Your task to perform on an android device: turn on the 24-hour format for clock Image 0: 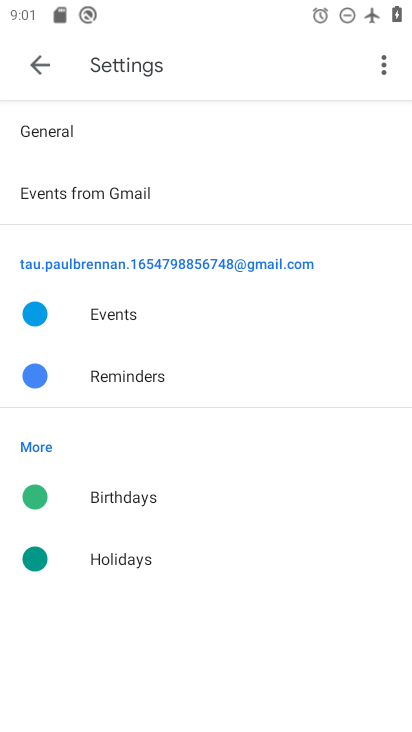
Step 0: press home button
Your task to perform on an android device: turn on the 24-hour format for clock Image 1: 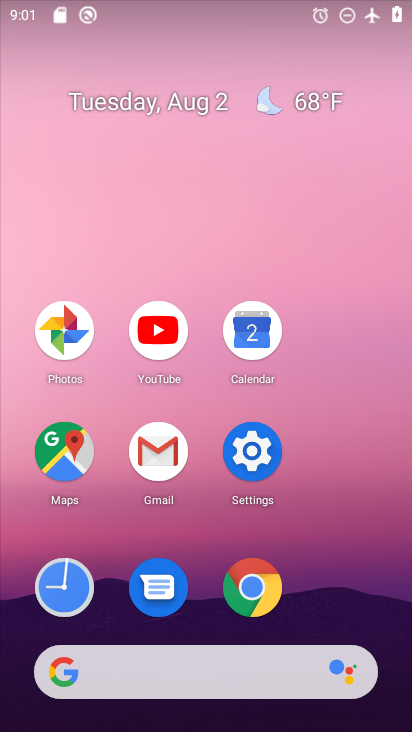
Step 1: click (60, 598)
Your task to perform on an android device: turn on the 24-hour format for clock Image 2: 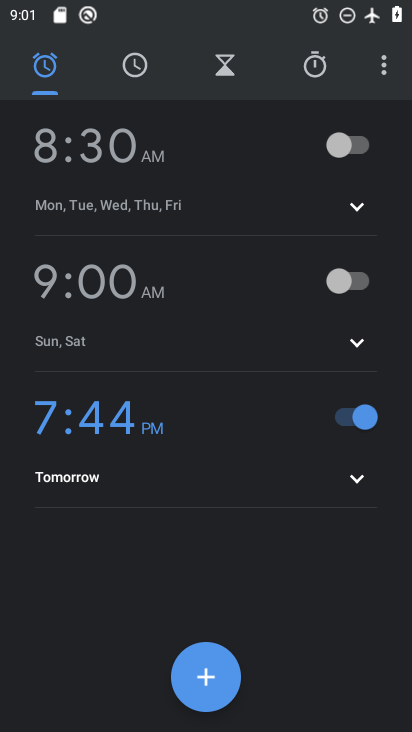
Step 2: click (387, 66)
Your task to perform on an android device: turn on the 24-hour format for clock Image 3: 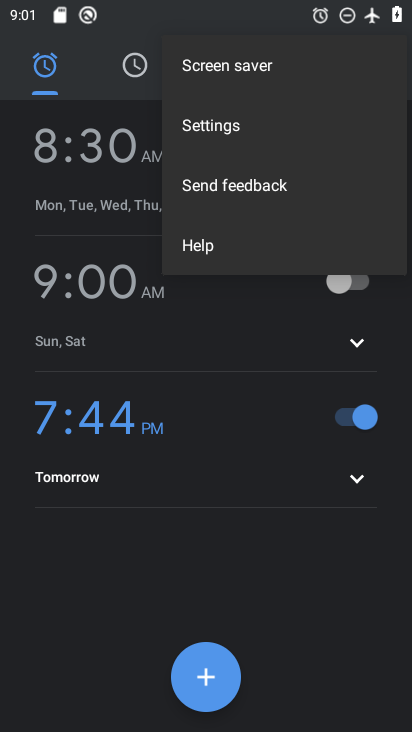
Step 3: click (235, 115)
Your task to perform on an android device: turn on the 24-hour format for clock Image 4: 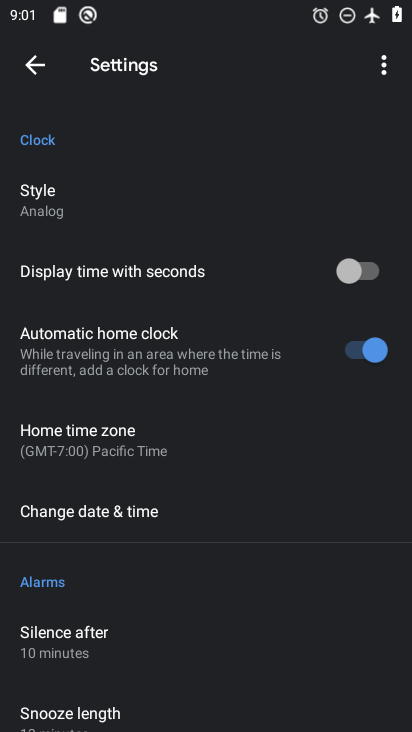
Step 4: drag from (239, 639) to (239, 162)
Your task to perform on an android device: turn on the 24-hour format for clock Image 5: 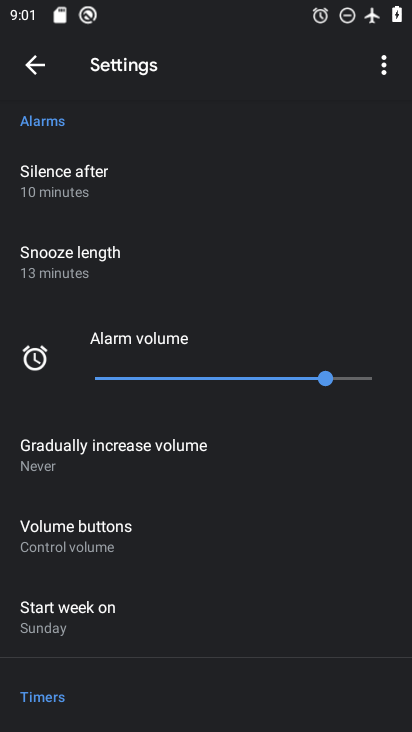
Step 5: drag from (236, 624) to (223, 198)
Your task to perform on an android device: turn on the 24-hour format for clock Image 6: 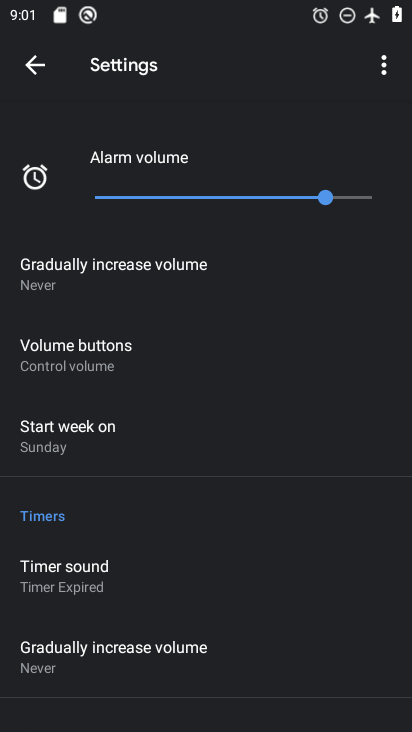
Step 6: drag from (255, 564) to (282, 229)
Your task to perform on an android device: turn on the 24-hour format for clock Image 7: 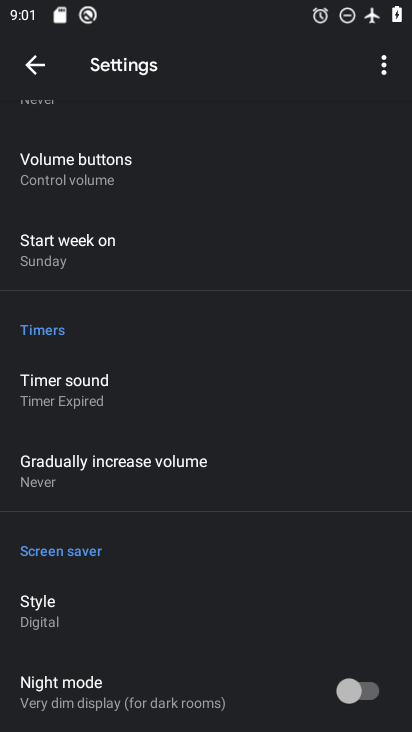
Step 7: drag from (186, 585) to (196, 205)
Your task to perform on an android device: turn on the 24-hour format for clock Image 8: 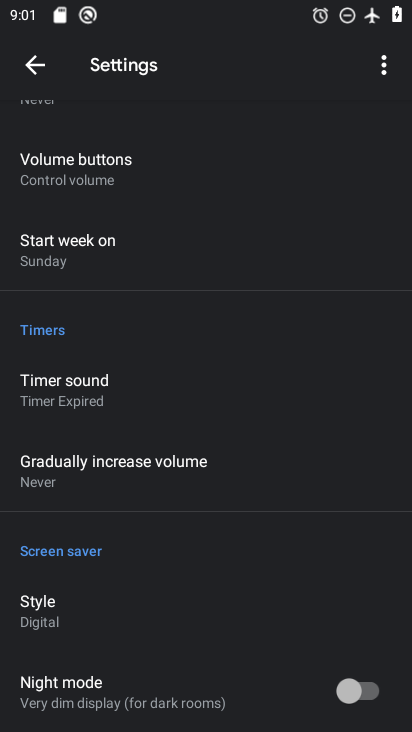
Step 8: drag from (196, 205) to (232, 595)
Your task to perform on an android device: turn on the 24-hour format for clock Image 9: 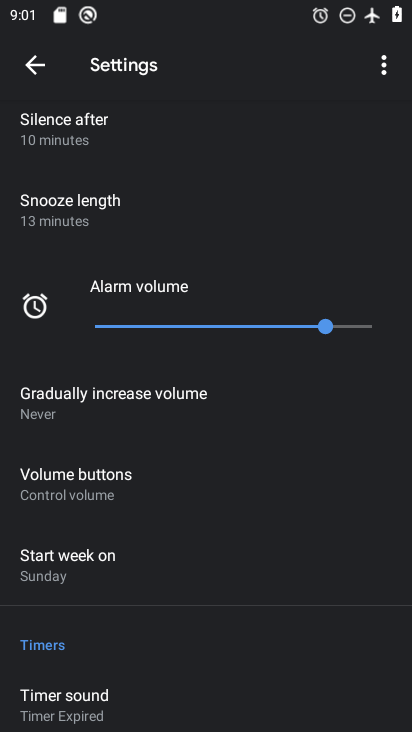
Step 9: drag from (228, 186) to (224, 544)
Your task to perform on an android device: turn on the 24-hour format for clock Image 10: 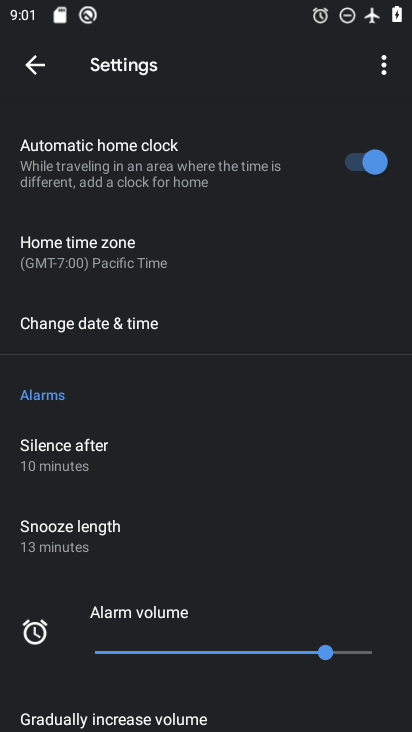
Step 10: click (137, 317)
Your task to perform on an android device: turn on the 24-hour format for clock Image 11: 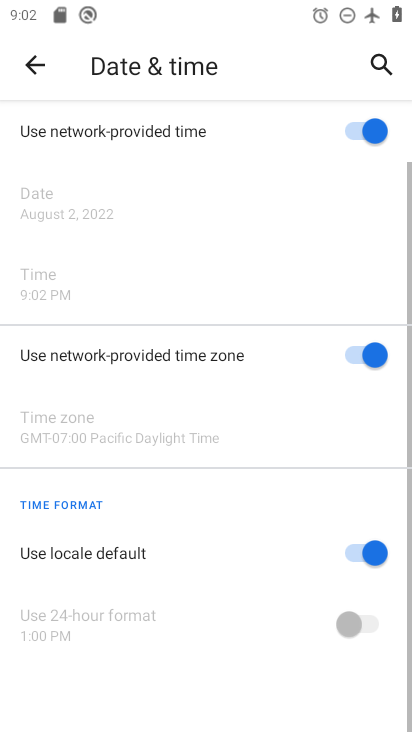
Step 11: click (374, 546)
Your task to perform on an android device: turn on the 24-hour format for clock Image 12: 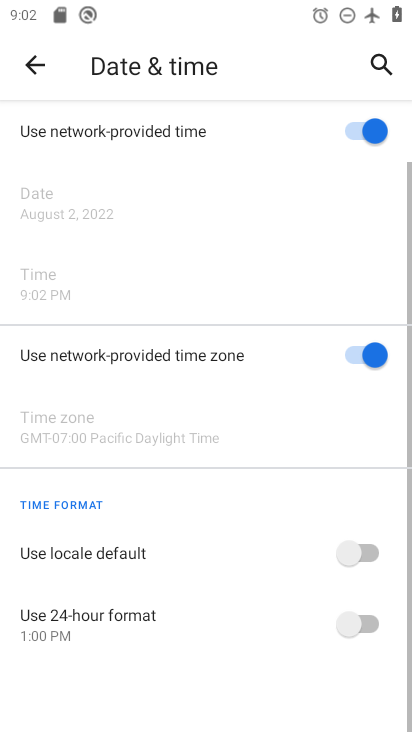
Step 12: click (353, 626)
Your task to perform on an android device: turn on the 24-hour format for clock Image 13: 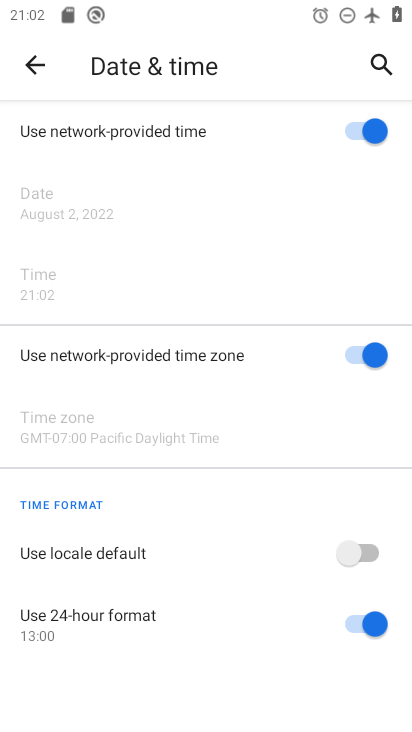
Step 13: task complete